Your task to perform on an android device: read, delete, or share a saved page in the chrome app Image 0: 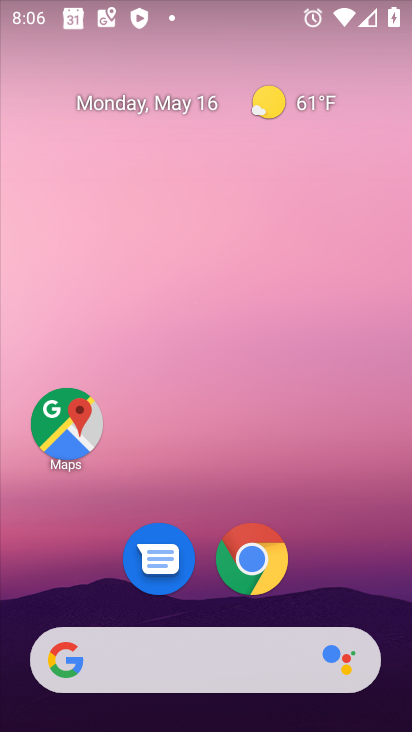
Step 0: drag from (380, 592) to (355, 212)
Your task to perform on an android device: read, delete, or share a saved page in the chrome app Image 1: 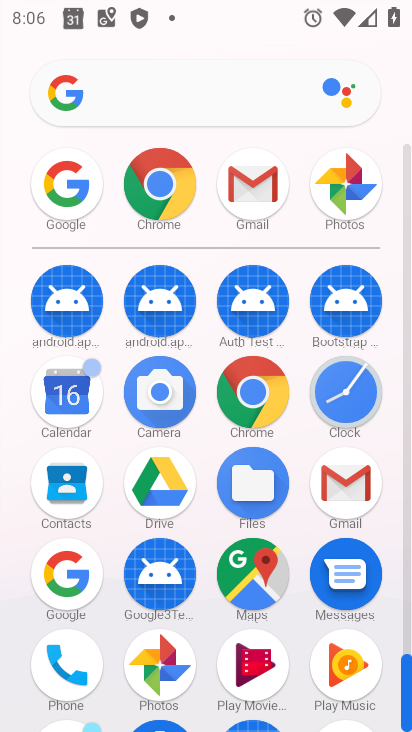
Step 1: click (264, 397)
Your task to perform on an android device: read, delete, or share a saved page in the chrome app Image 2: 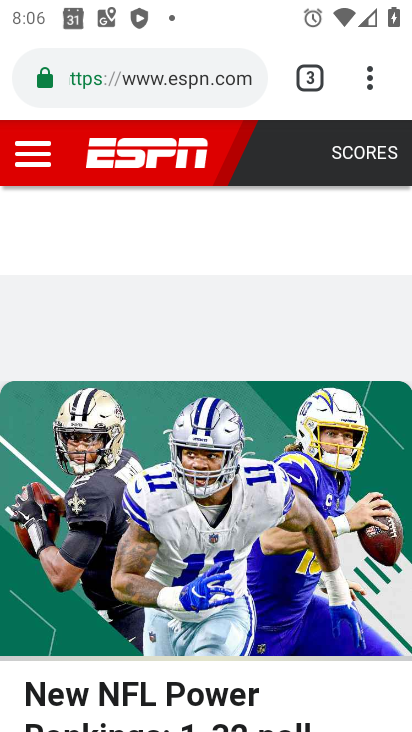
Step 2: drag from (367, 87) to (204, 303)
Your task to perform on an android device: read, delete, or share a saved page in the chrome app Image 3: 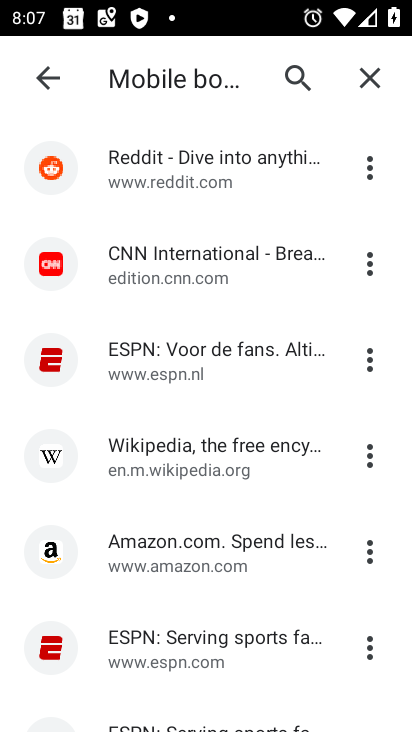
Step 3: drag from (214, 577) to (248, 190)
Your task to perform on an android device: read, delete, or share a saved page in the chrome app Image 4: 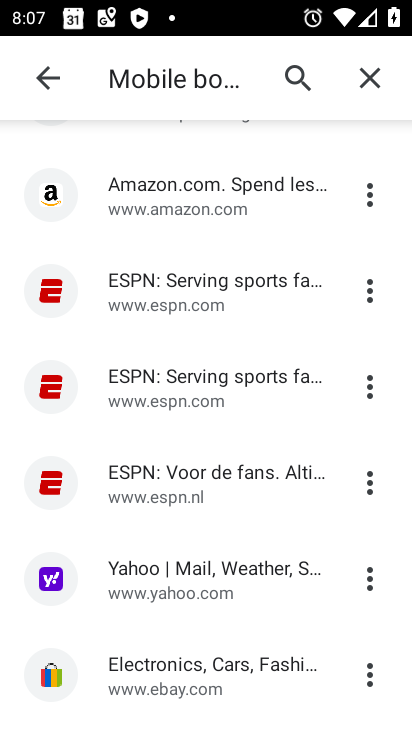
Step 4: click (370, 196)
Your task to perform on an android device: read, delete, or share a saved page in the chrome app Image 5: 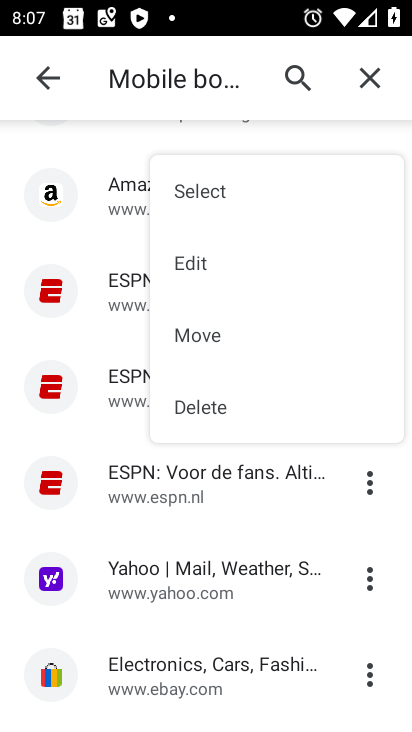
Step 5: click (197, 402)
Your task to perform on an android device: read, delete, or share a saved page in the chrome app Image 6: 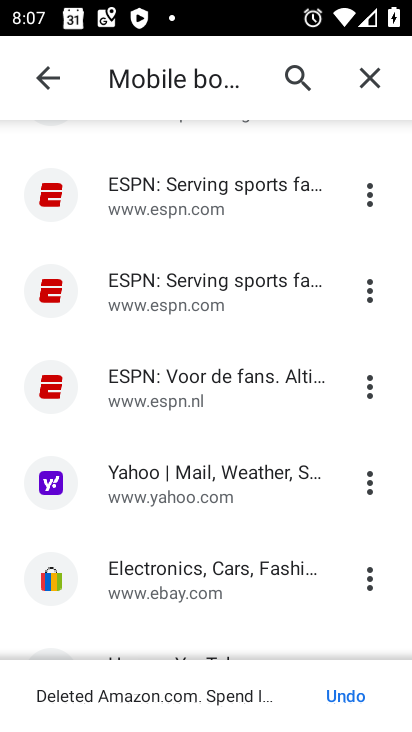
Step 6: task complete